Your task to perform on an android device: Go to Maps Image 0: 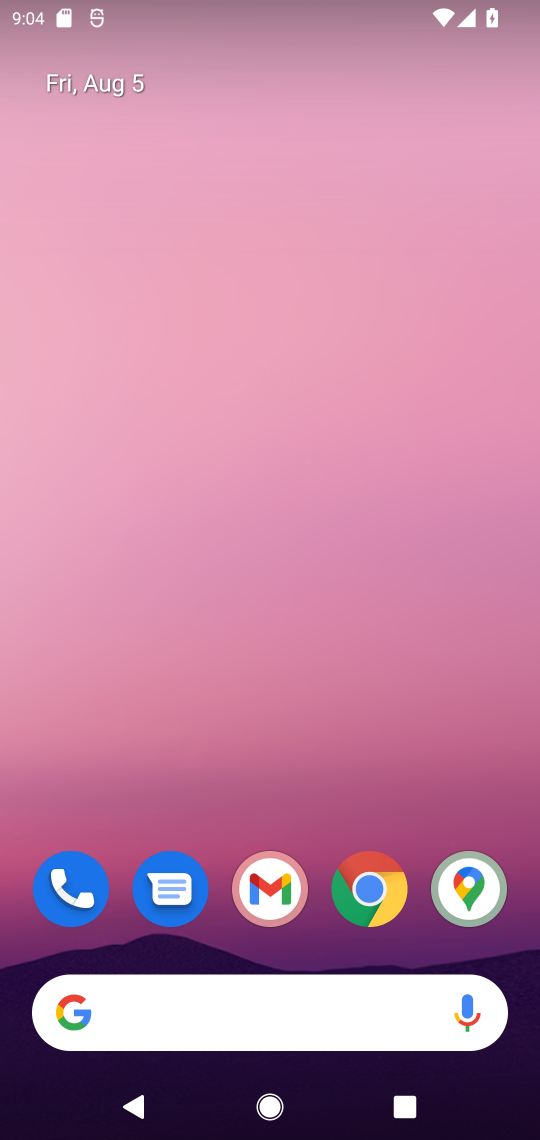
Step 0: drag from (250, 784) to (270, 167)
Your task to perform on an android device: Go to Maps Image 1: 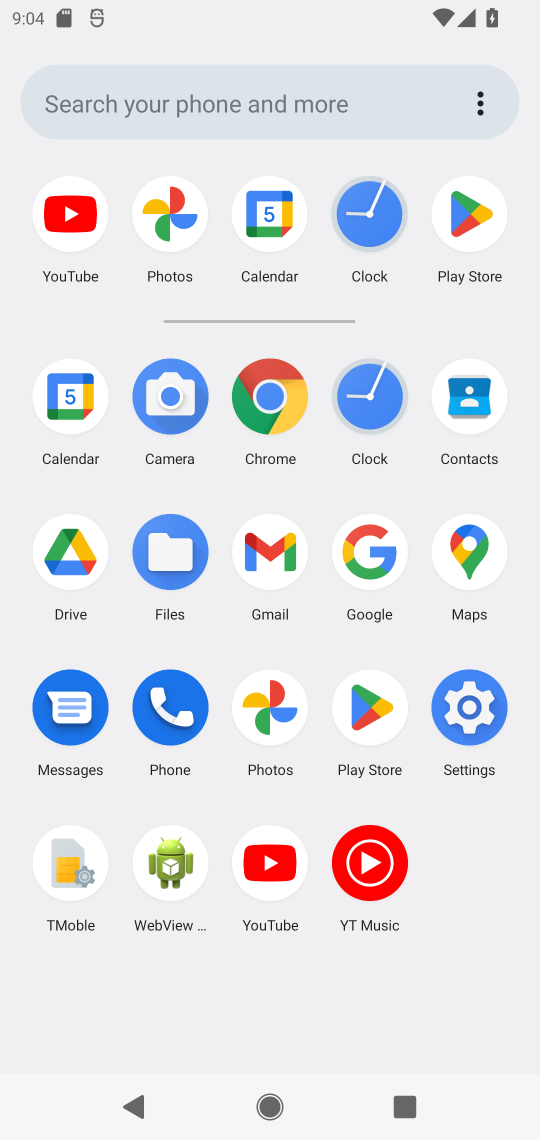
Step 1: click (455, 557)
Your task to perform on an android device: Go to Maps Image 2: 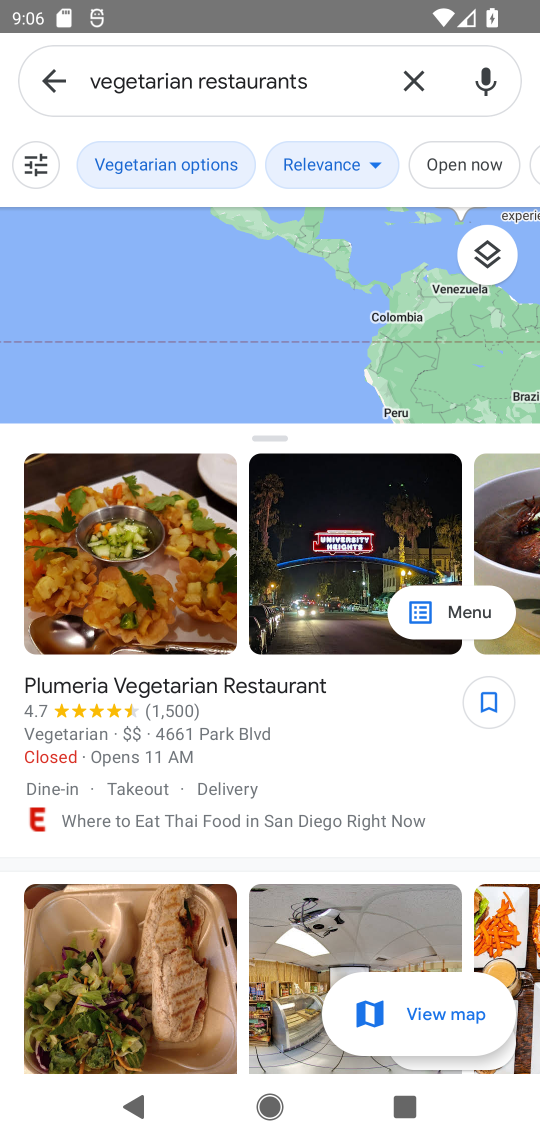
Step 2: task complete